Your task to perform on an android device: Open sound settings Image 0: 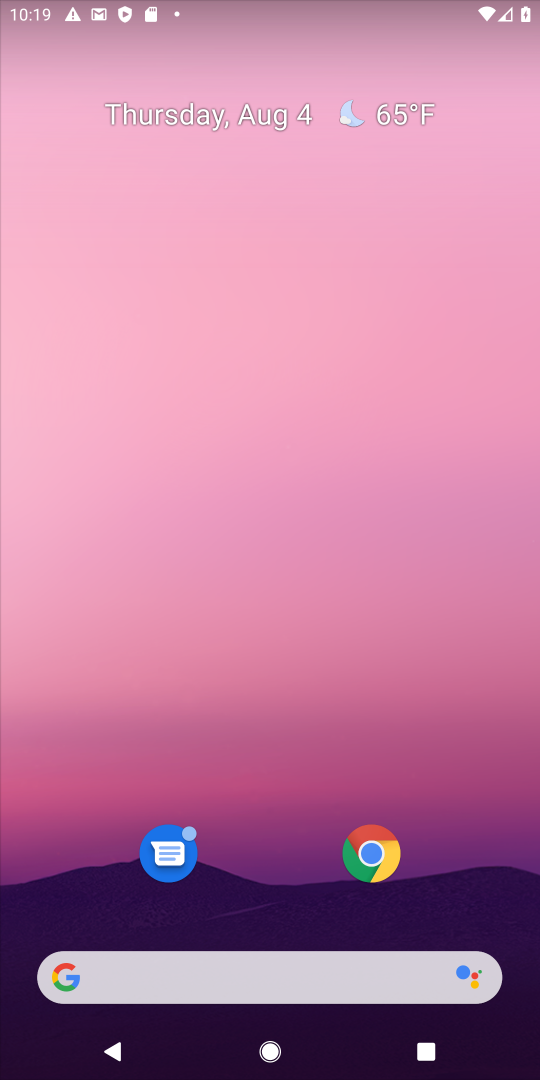
Step 0: drag from (245, 932) to (206, 136)
Your task to perform on an android device: Open sound settings Image 1: 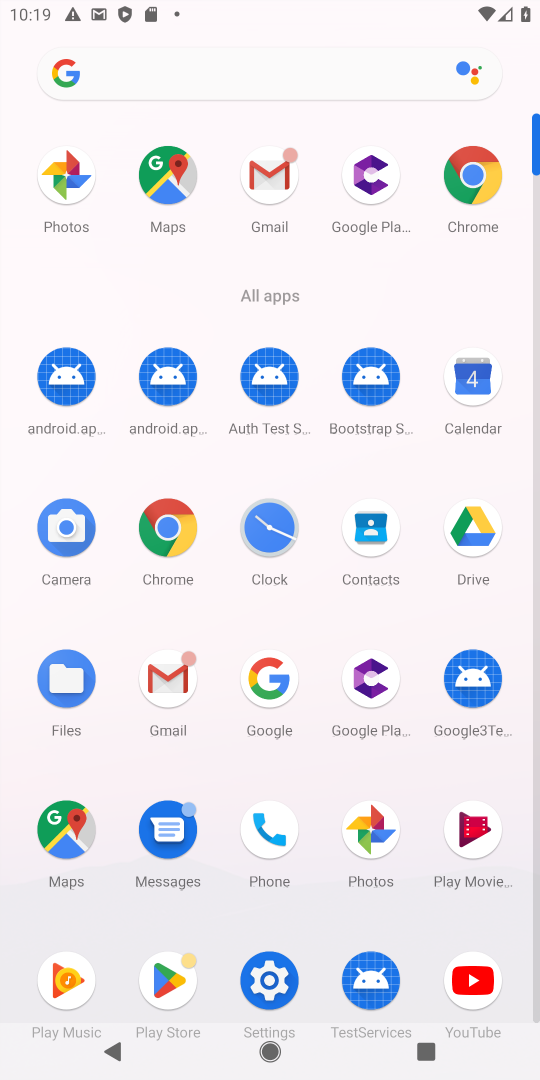
Step 1: click (281, 990)
Your task to perform on an android device: Open sound settings Image 2: 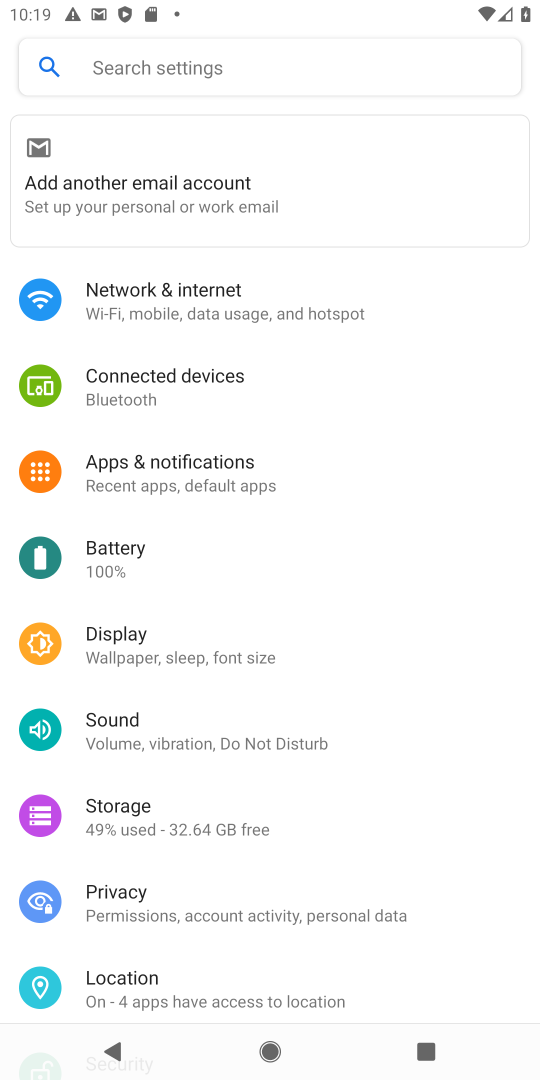
Step 2: click (148, 743)
Your task to perform on an android device: Open sound settings Image 3: 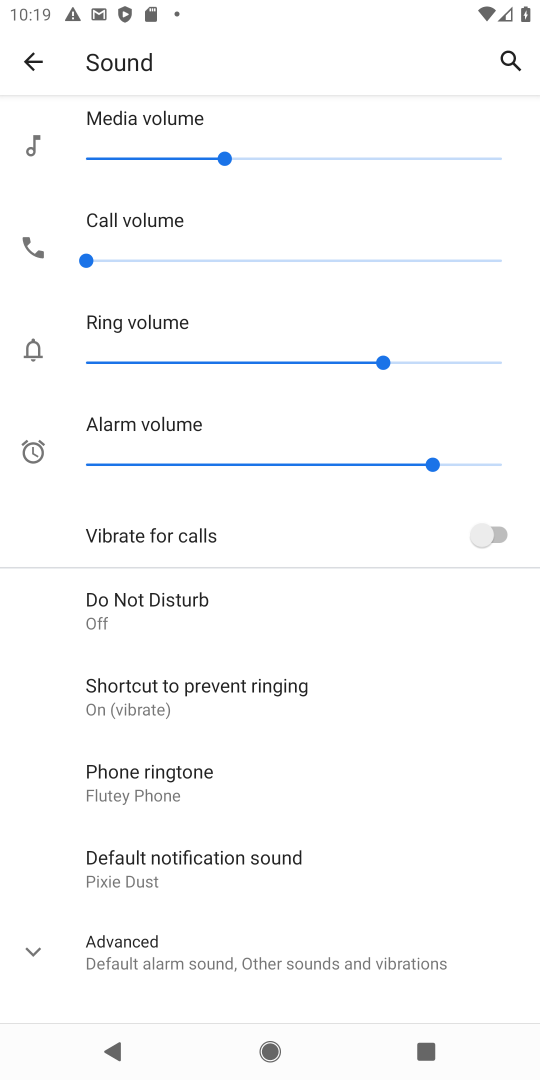
Step 3: task complete